Your task to perform on an android device: Show me popular games on the Play Store Image 0: 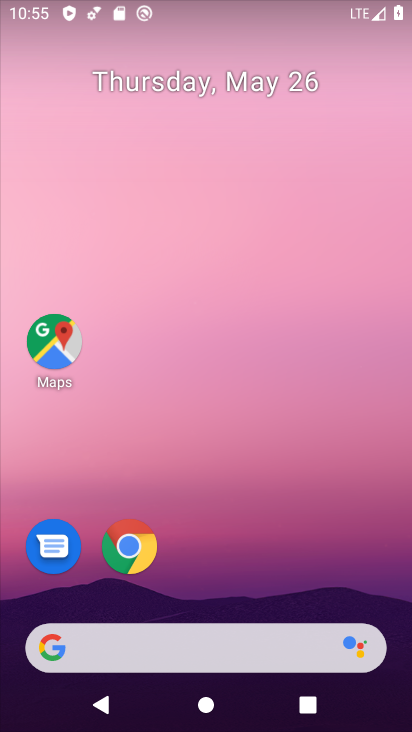
Step 0: drag from (212, 566) to (302, 82)
Your task to perform on an android device: Show me popular games on the Play Store Image 1: 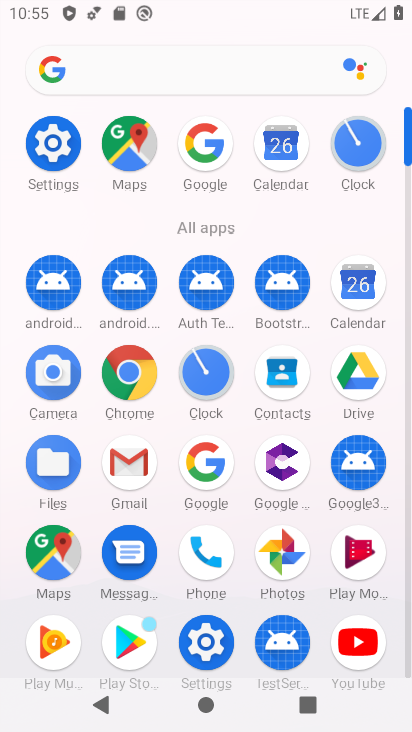
Step 1: click (128, 642)
Your task to perform on an android device: Show me popular games on the Play Store Image 2: 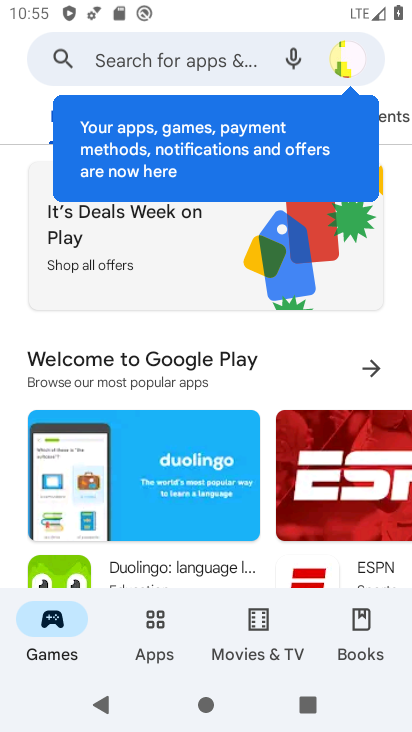
Step 2: drag from (253, 550) to (261, 159)
Your task to perform on an android device: Show me popular games on the Play Store Image 3: 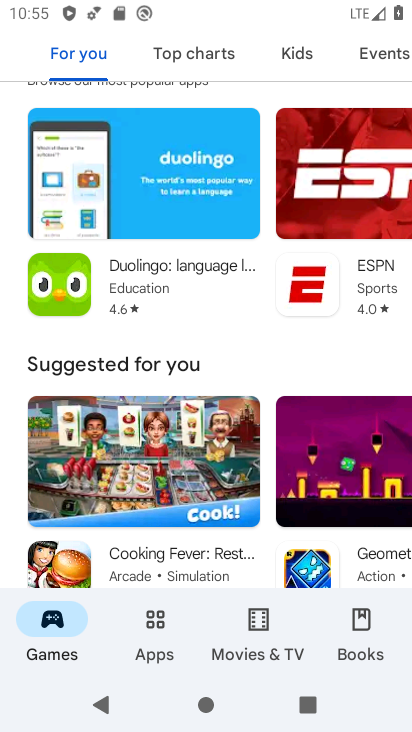
Step 3: drag from (278, 561) to (300, 179)
Your task to perform on an android device: Show me popular games on the Play Store Image 4: 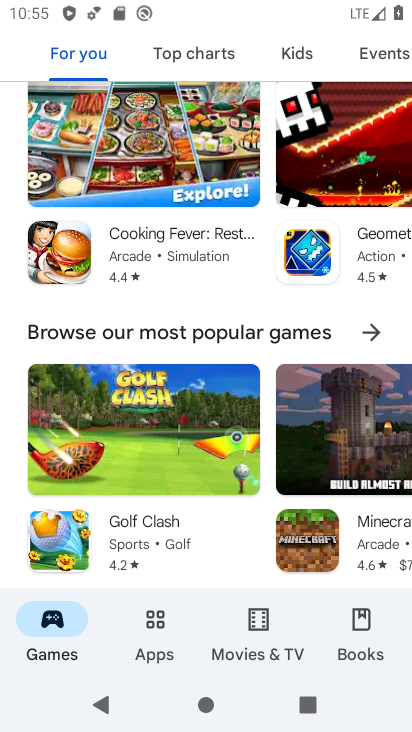
Step 4: click (366, 330)
Your task to perform on an android device: Show me popular games on the Play Store Image 5: 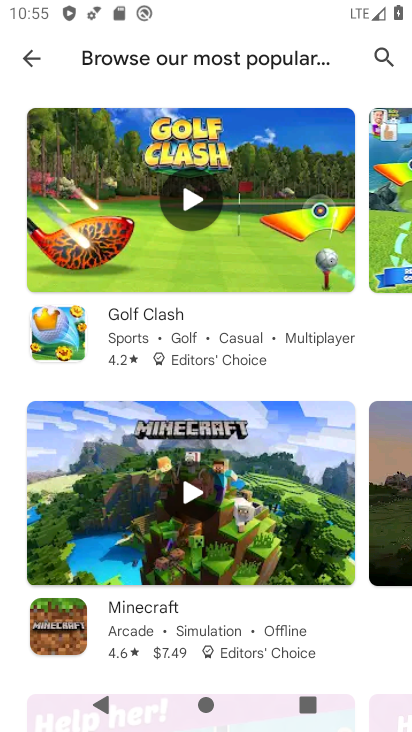
Step 5: task complete